Your task to perform on an android device: turn off notifications in google photos Image 0: 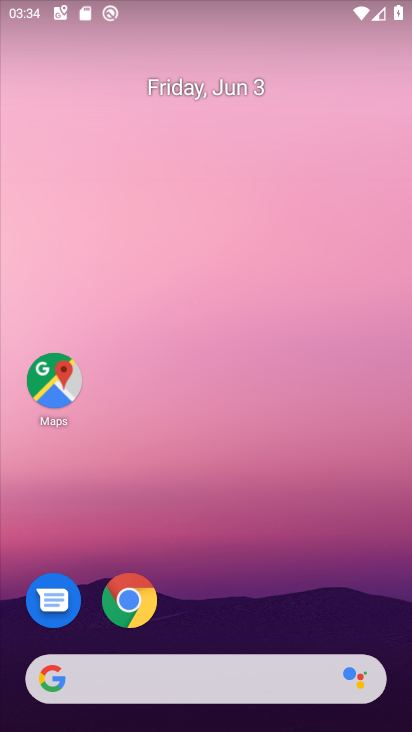
Step 0: drag from (210, 606) to (215, 217)
Your task to perform on an android device: turn off notifications in google photos Image 1: 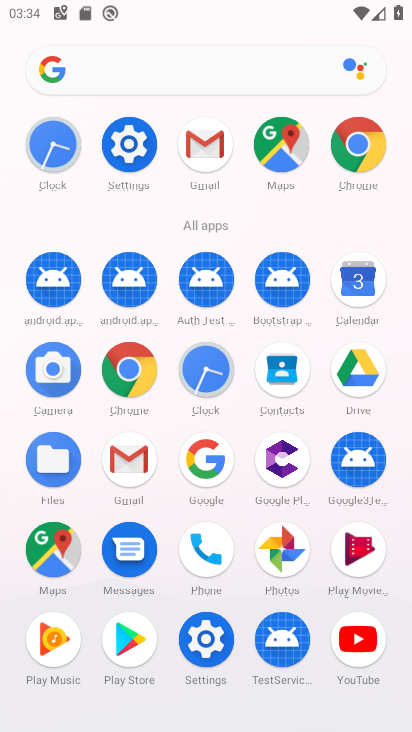
Step 1: click (277, 550)
Your task to perform on an android device: turn off notifications in google photos Image 2: 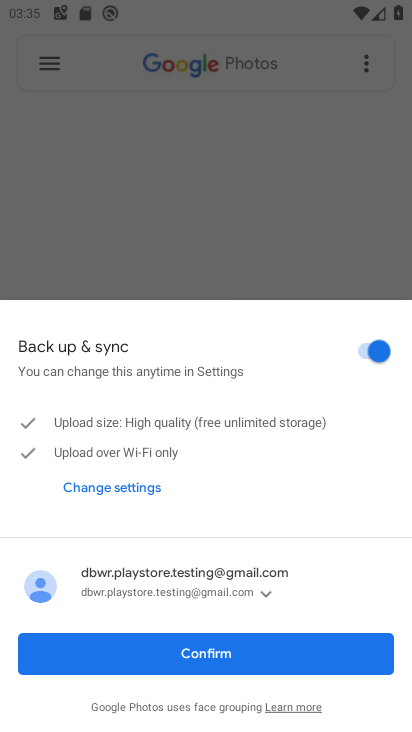
Step 2: click (240, 650)
Your task to perform on an android device: turn off notifications in google photos Image 3: 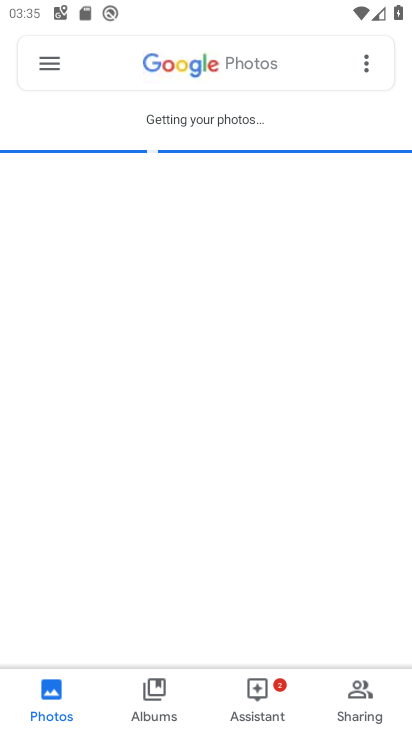
Step 3: click (42, 53)
Your task to perform on an android device: turn off notifications in google photos Image 4: 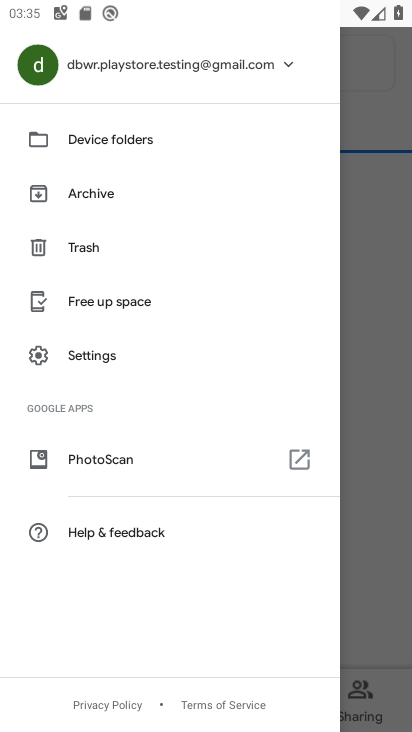
Step 4: click (98, 361)
Your task to perform on an android device: turn off notifications in google photos Image 5: 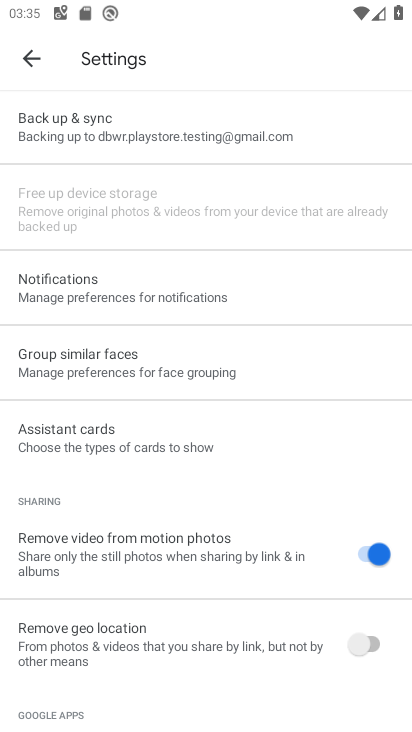
Step 5: click (109, 287)
Your task to perform on an android device: turn off notifications in google photos Image 6: 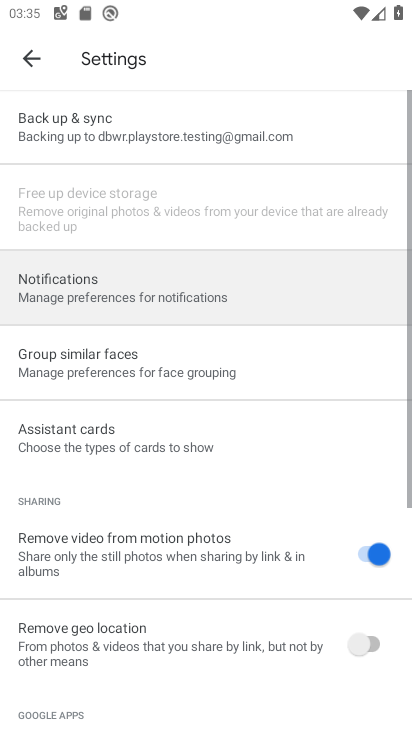
Step 6: click (139, 302)
Your task to perform on an android device: turn off notifications in google photos Image 7: 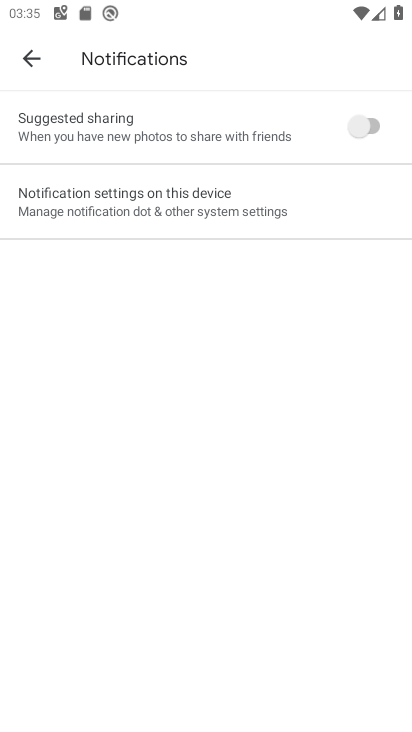
Step 7: click (213, 211)
Your task to perform on an android device: turn off notifications in google photos Image 8: 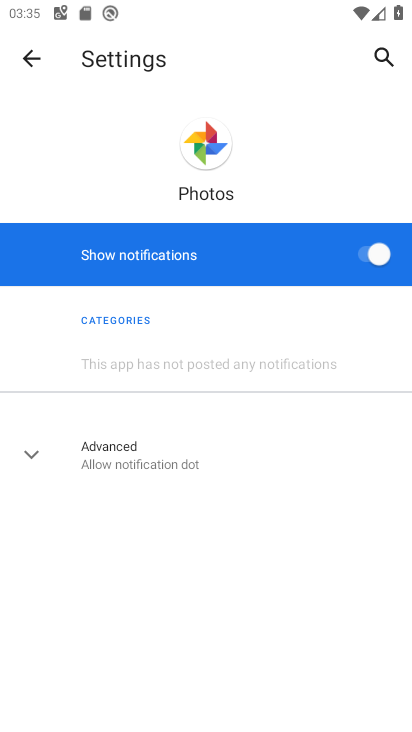
Step 8: click (355, 254)
Your task to perform on an android device: turn off notifications in google photos Image 9: 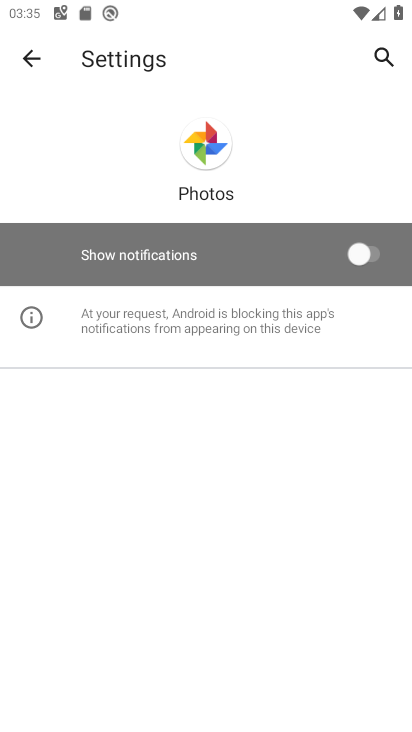
Step 9: task complete